Your task to perform on an android device: turn pop-ups off in chrome Image 0: 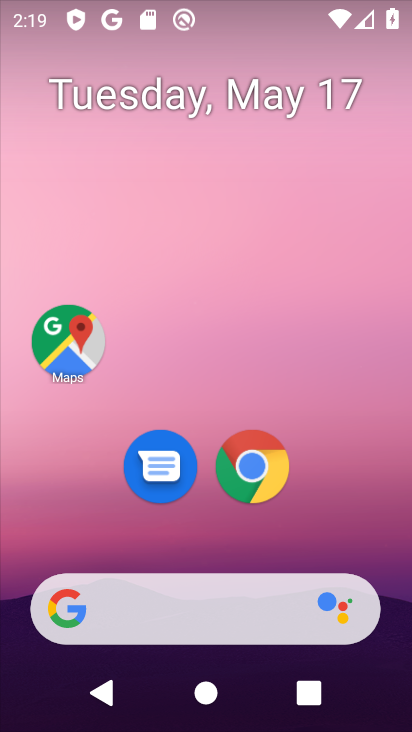
Step 0: click (253, 450)
Your task to perform on an android device: turn pop-ups off in chrome Image 1: 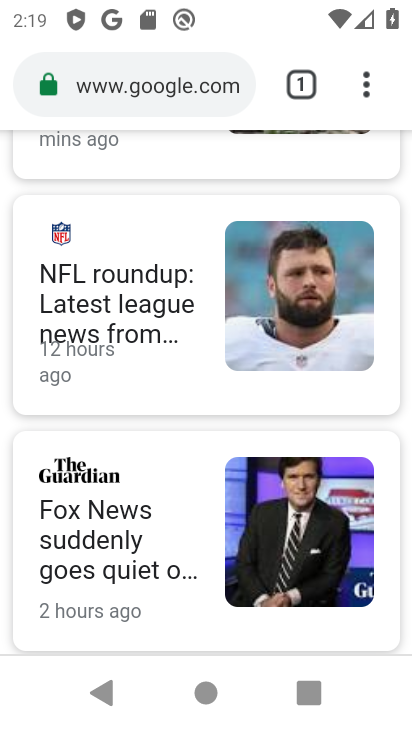
Step 1: drag from (365, 86) to (199, 489)
Your task to perform on an android device: turn pop-ups off in chrome Image 2: 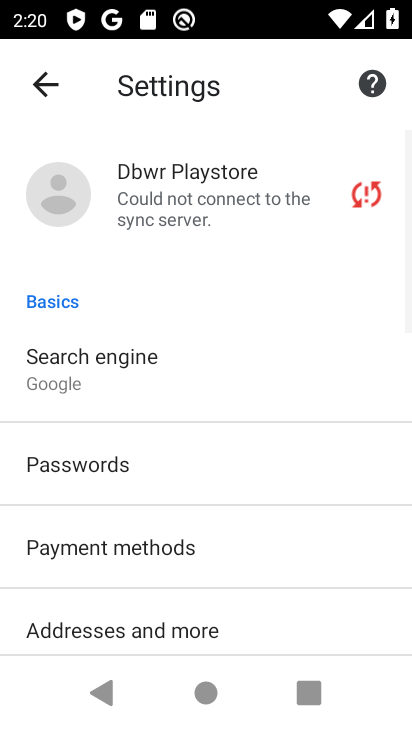
Step 2: drag from (223, 606) to (282, 134)
Your task to perform on an android device: turn pop-ups off in chrome Image 3: 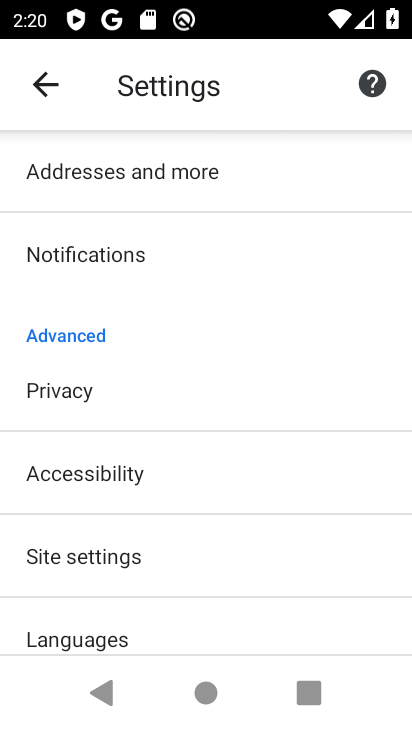
Step 3: click (137, 546)
Your task to perform on an android device: turn pop-ups off in chrome Image 4: 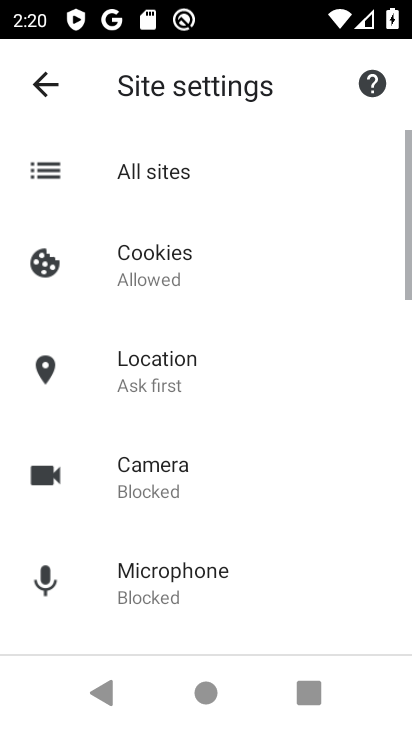
Step 4: drag from (214, 561) to (318, 94)
Your task to perform on an android device: turn pop-ups off in chrome Image 5: 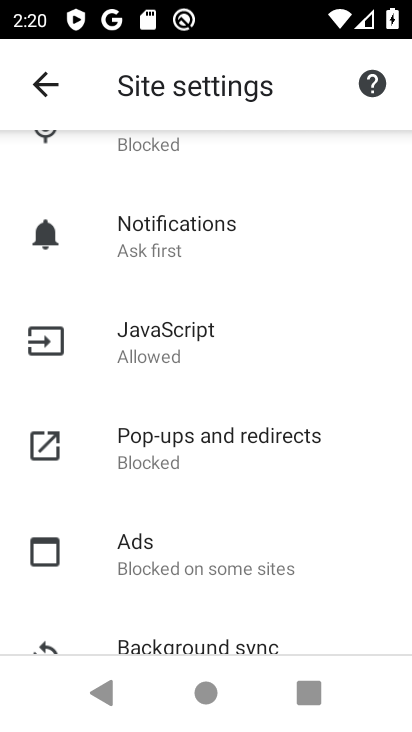
Step 5: click (195, 463)
Your task to perform on an android device: turn pop-ups off in chrome Image 6: 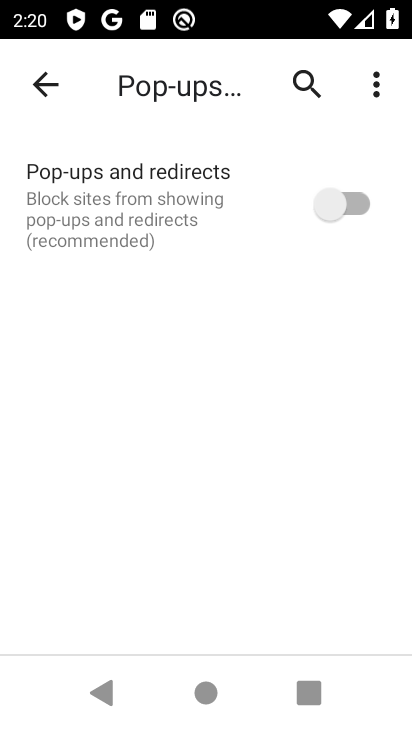
Step 6: task complete